Your task to perform on an android device: Open Google Image 0: 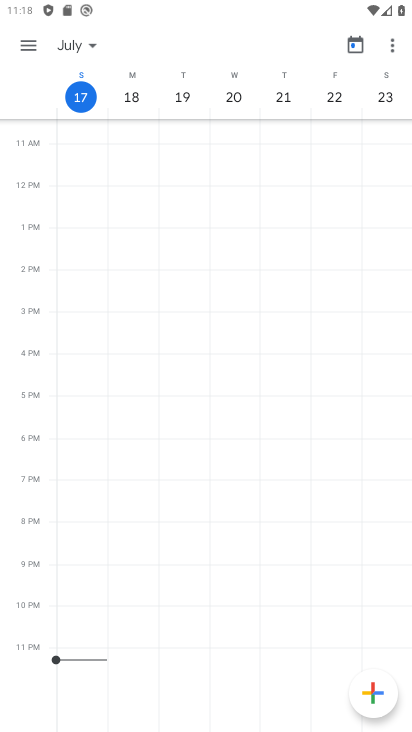
Step 0: press home button
Your task to perform on an android device: Open Google Image 1: 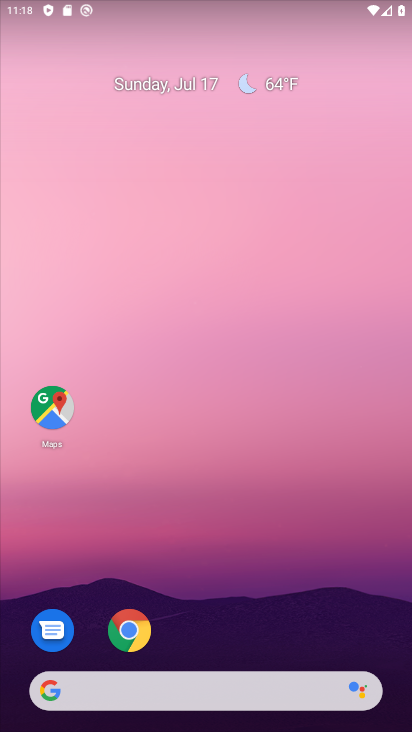
Step 1: click (129, 631)
Your task to perform on an android device: Open Google Image 2: 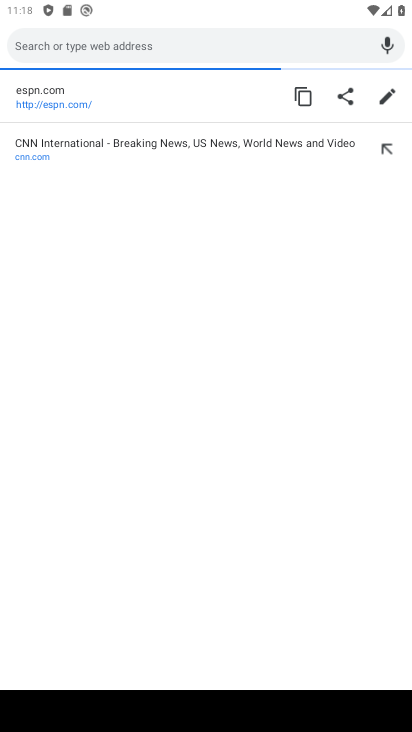
Step 2: task complete